Your task to perform on an android device: change the upload size in google photos Image 0: 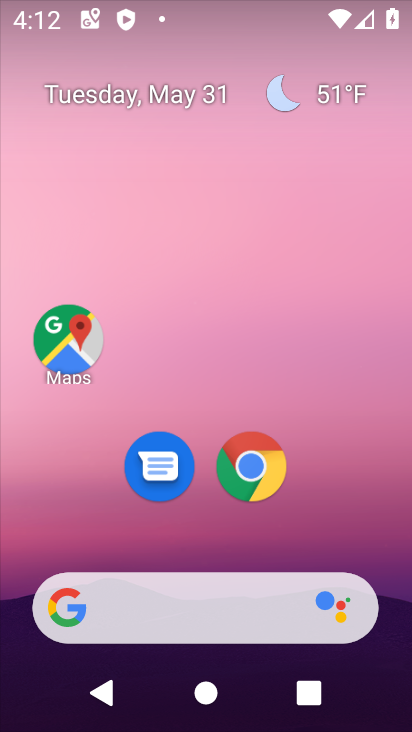
Step 0: drag from (209, 553) to (204, 24)
Your task to perform on an android device: change the upload size in google photos Image 1: 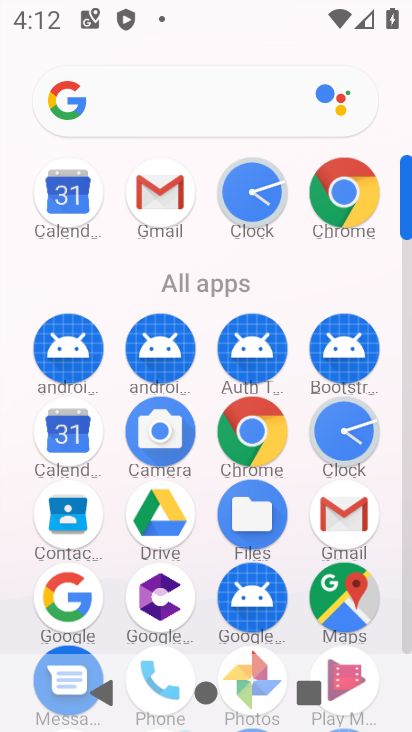
Step 1: drag from (203, 561) to (219, 123)
Your task to perform on an android device: change the upload size in google photos Image 2: 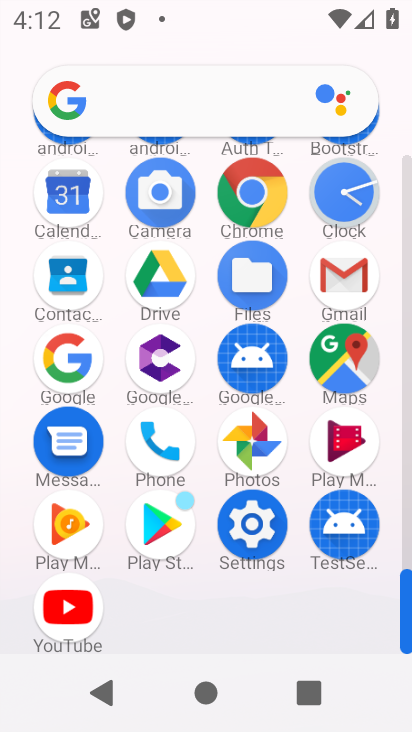
Step 2: click (251, 431)
Your task to perform on an android device: change the upload size in google photos Image 3: 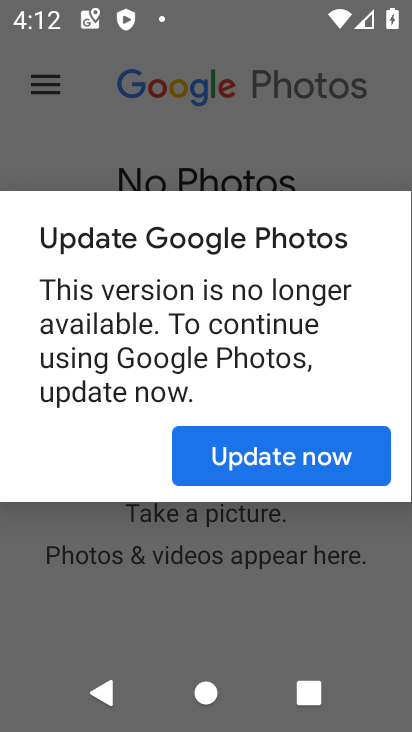
Step 3: click (298, 451)
Your task to perform on an android device: change the upload size in google photos Image 4: 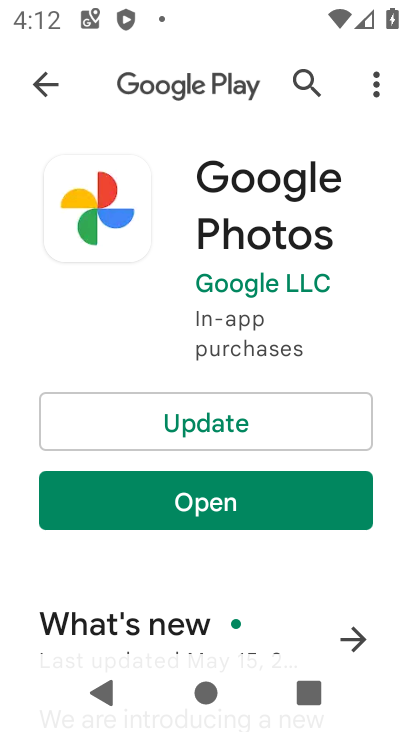
Step 4: click (225, 429)
Your task to perform on an android device: change the upload size in google photos Image 5: 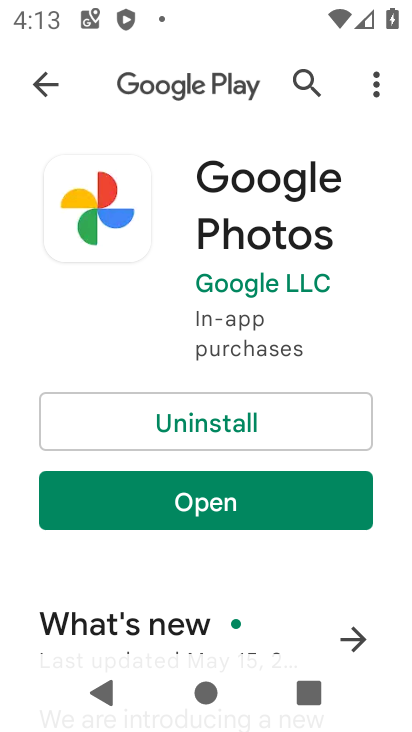
Step 5: click (215, 504)
Your task to perform on an android device: change the upload size in google photos Image 6: 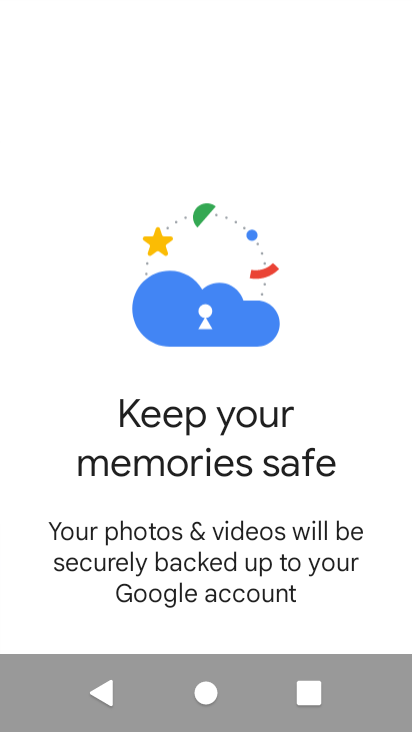
Step 6: drag from (282, 597) to (299, 62)
Your task to perform on an android device: change the upload size in google photos Image 7: 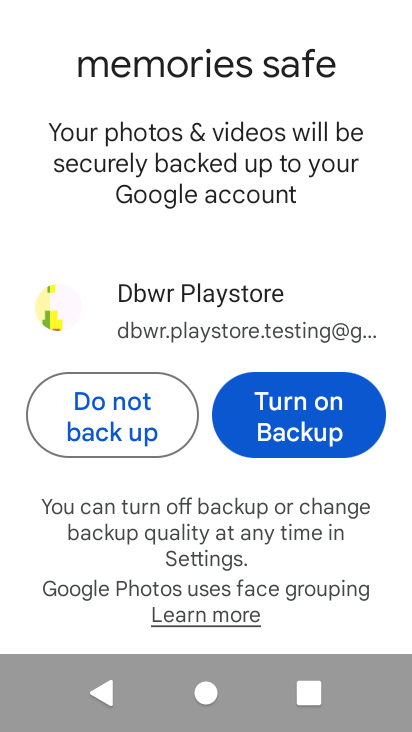
Step 7: click (291, 418)
Your task to perform on an android device: change the upload size in google photos Image 8: 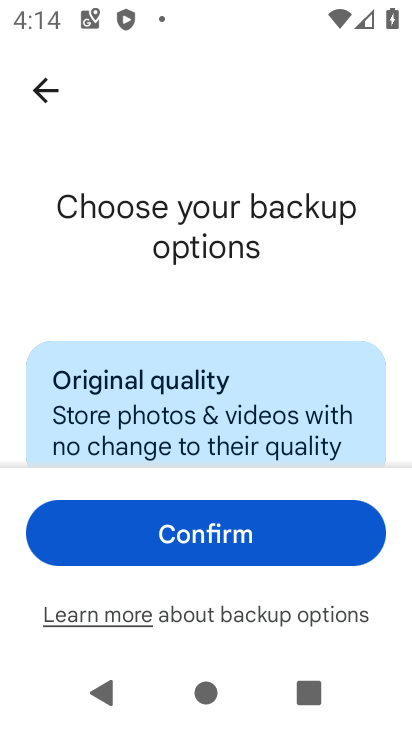
Step 8: drag from (222, 411) to (241, 93)
Your task to perform on an android device: change the upload size in google photos Image 9: 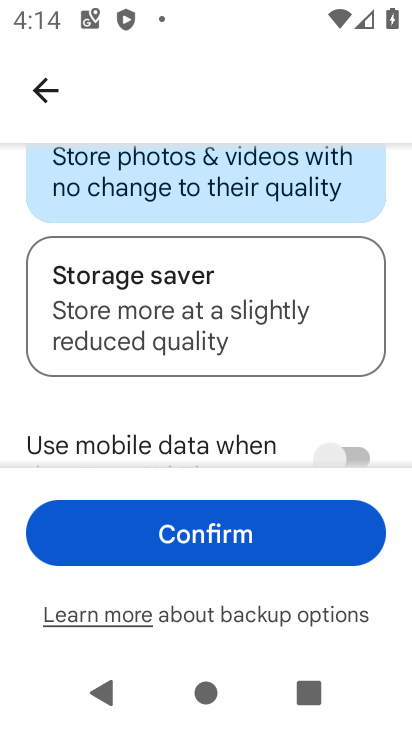
Step 9: click (220, 532)
Your task to perform on an android device: change the upload size in google photos Image 10: 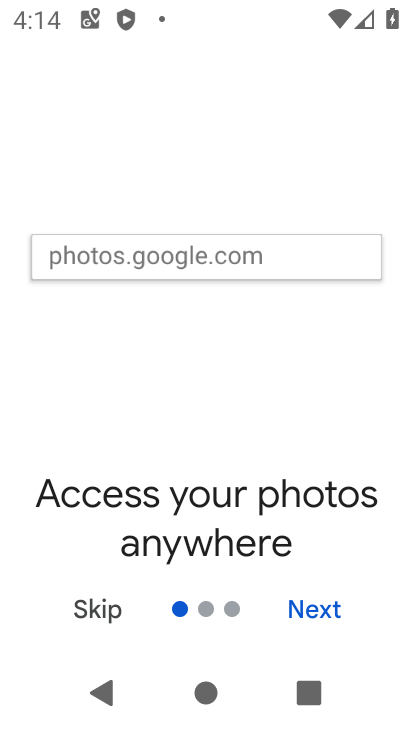
Step 10: click (303, 602)
Your task to perform on an android device: change the upload size in google photos Image 11: 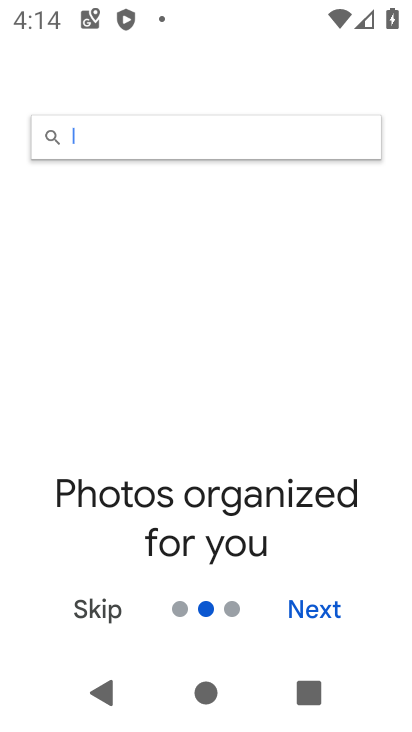
Step 11: click (303, 602)
Your task to perform on an android device: change the upload size in google photos Image 12: 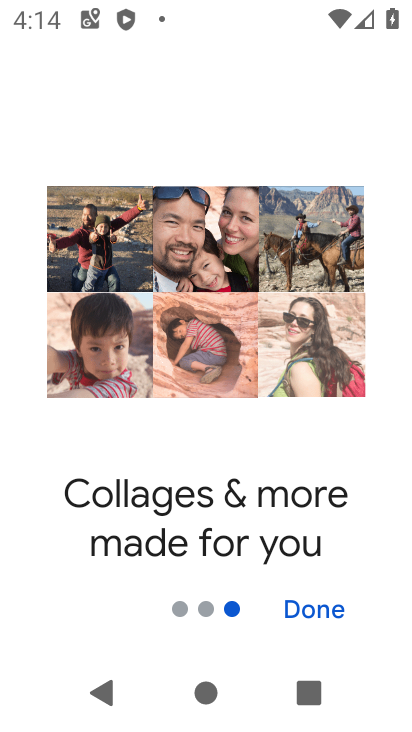
Step 12: click (312, 603)
Your task to perform on an android device: change the upload size in google photos Image 13: 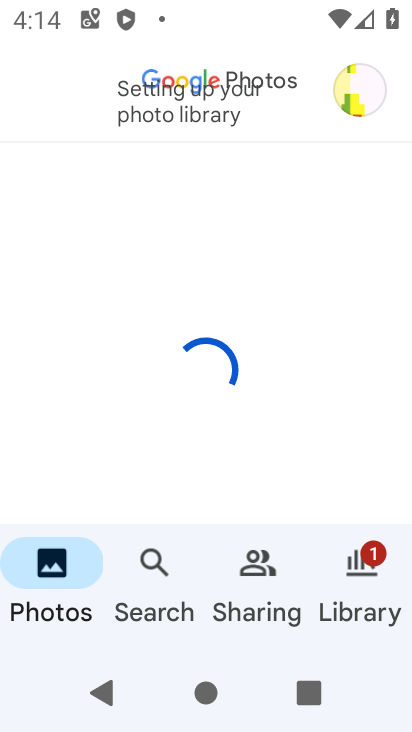
Step 13: task complete